Your task to perform on an android device: Is it going to rain today? Image 0: 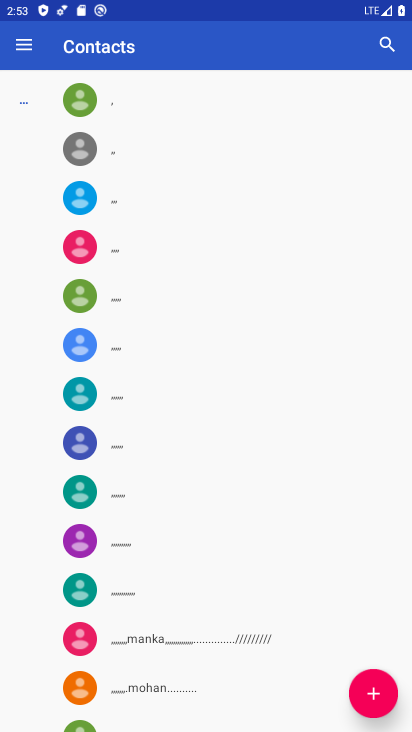
Step 0: press home button
Your task to perform on an android device: Is it going to rain today? Image 1: 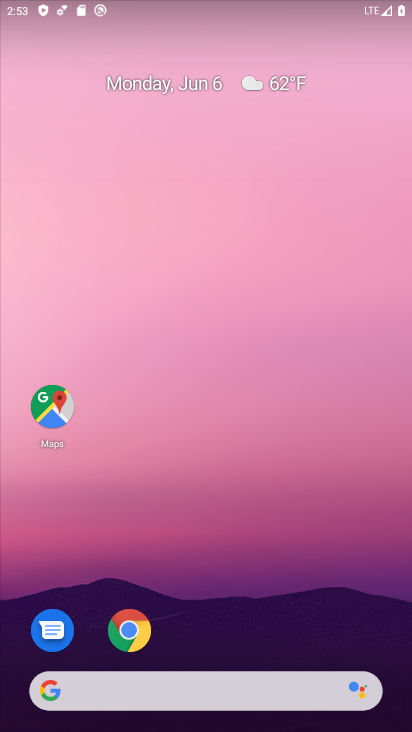
Step 1: click (136, 627)
Your task to perform on an android device: Is it going to rain today? Image 2: 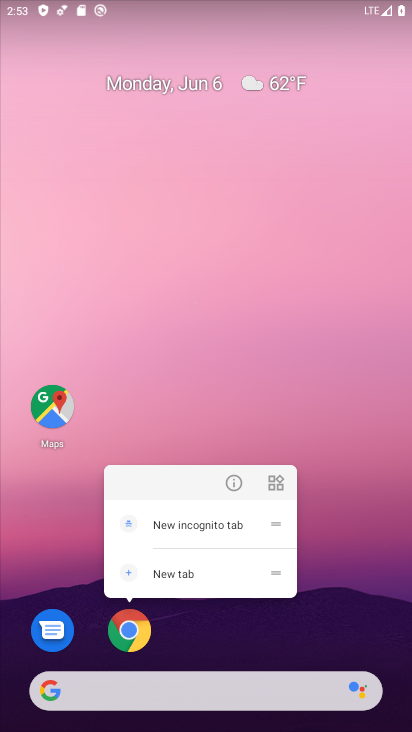
Step 2: click (136, 627)
Your task to perform on an android device: Is it going to rain today? Image 3: 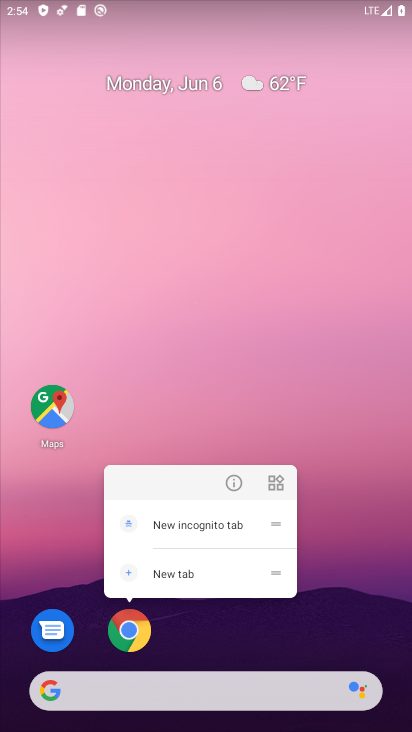
Step 3: click (131, 628)
Your task to perform on an android device: Is it going to rain today? Image 4: 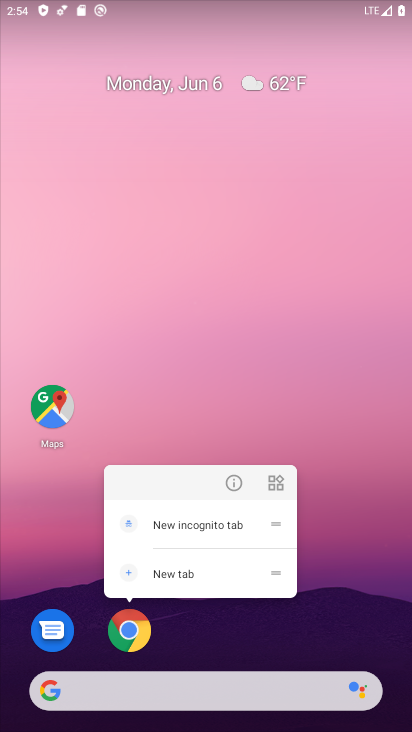
Step 4: click (131, 628)
Your task to perform on an android device: Is it going to rain today? Image 5: 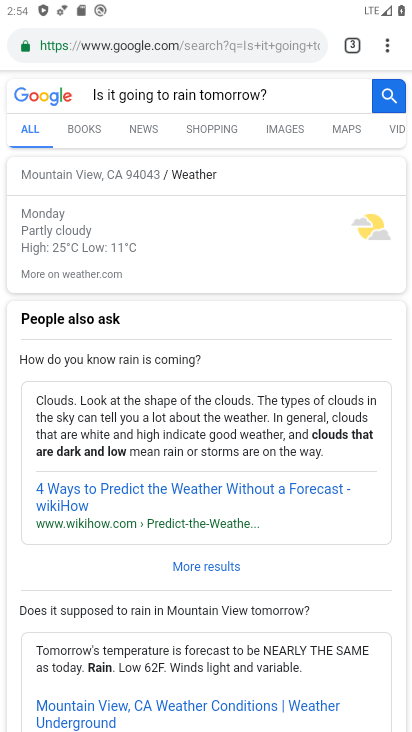
Step 5: click (230, 47)
Your task to perform on an android device: Is it going to rain today? Image 6: 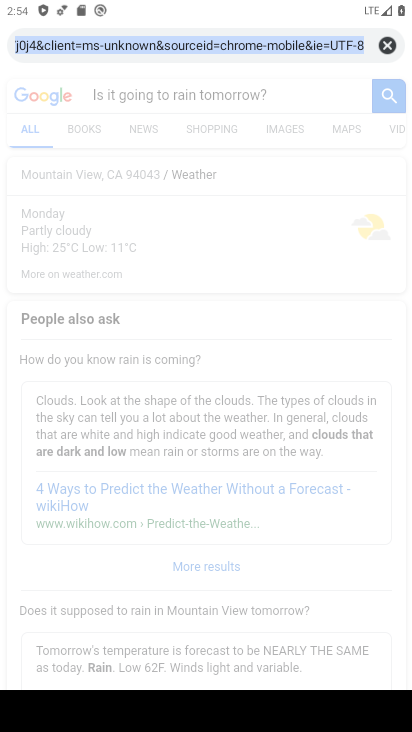
Step 6: click (383, 38)
Your task to perform on an android device: Is it going to rain today? Image 7: 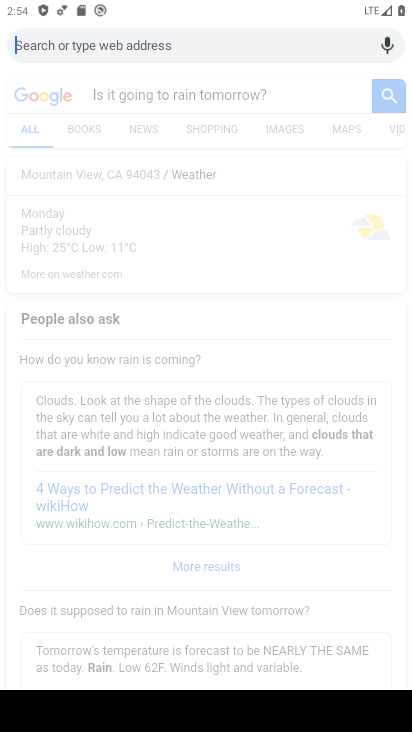
Step 7: type "Is it going to rain today?"
Your task to perform on an android device: Is it going to rain today? Image 8: 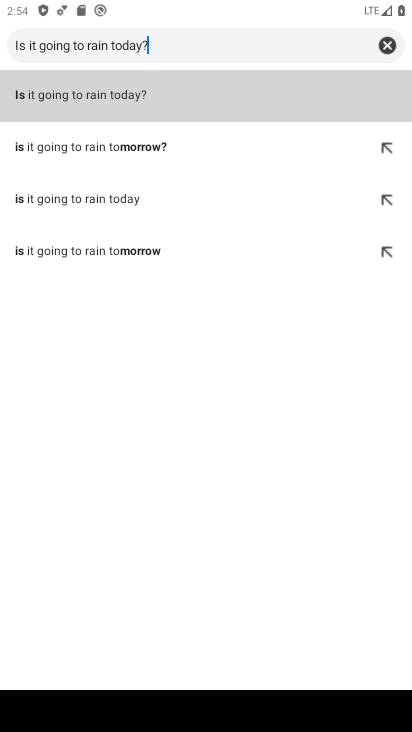
Step 8: type ""
Your task to perform on an android device: Is it going to rain today? Image 9: 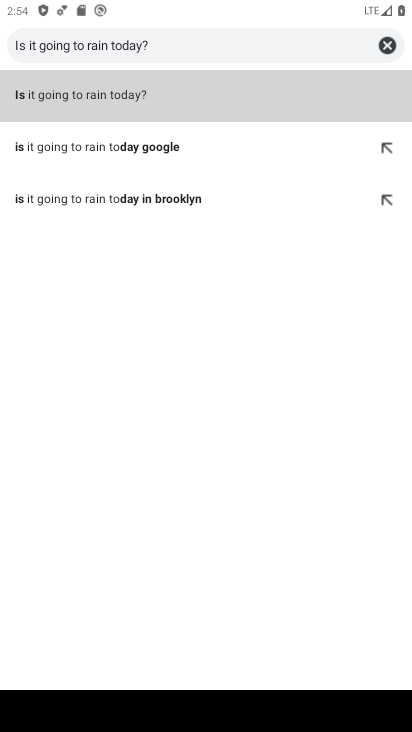
Step 9: click (89, 88)
Your task to perform on an android device: Is it going to rain today? Image 10: 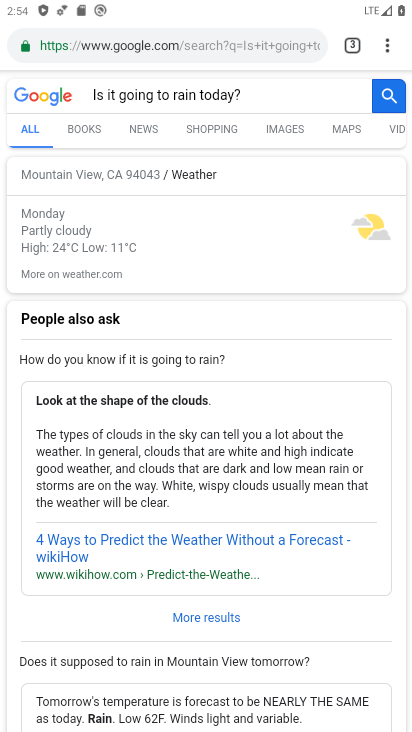
Step 10: task complete